Your task to perform on an android device: Open Wikipedia Image 0: 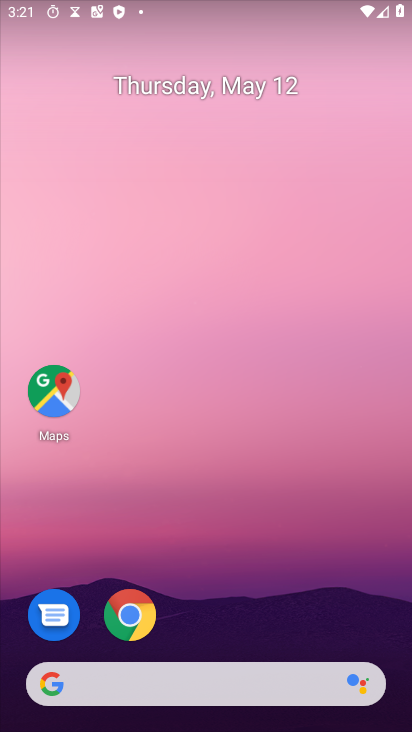
Step 0: press home button
Your task to perform on an android device: Open Wikipedia Image 1: 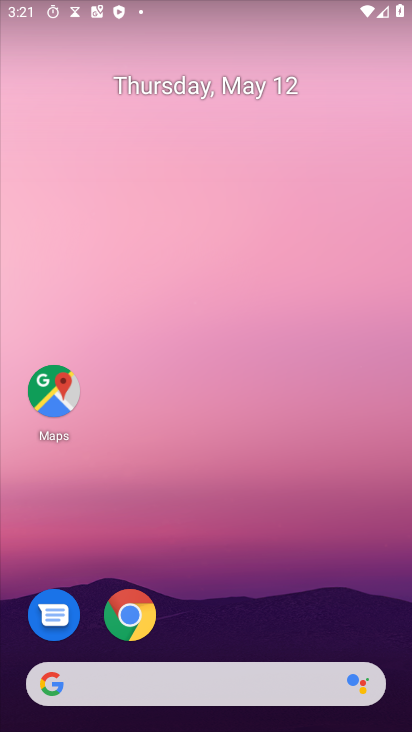
Step 1: click (123, 620)
Your task to perform on an android device: Open Wikipedia Image 2: 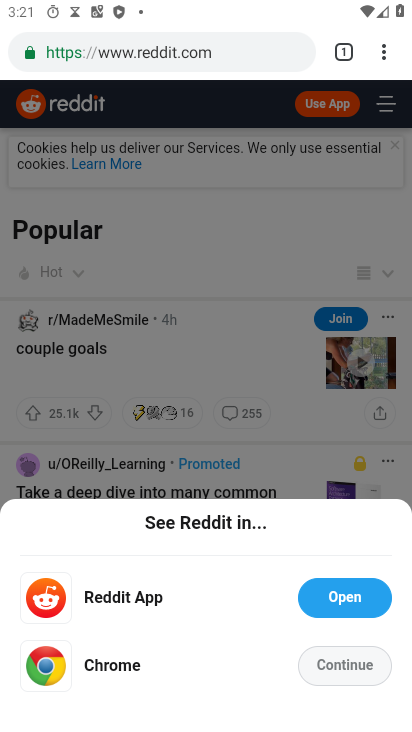
Step 2: click (340, 55)
Your task to perform on an android device: Open Wikipedia Image 3: 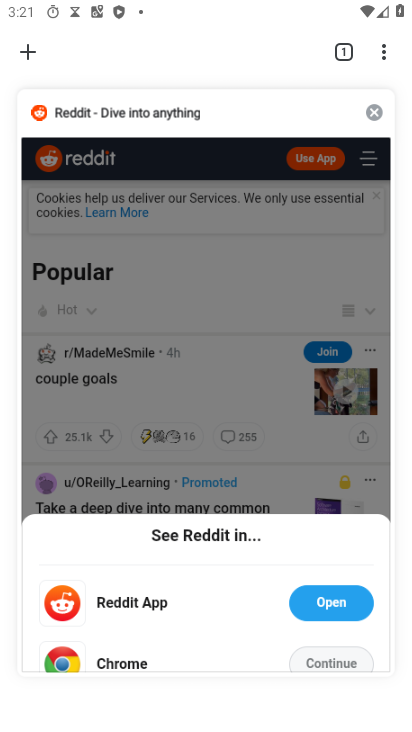
Step 3: click (371, 114)
Your task to perform on an android device: Open Wikipedia Image 4: 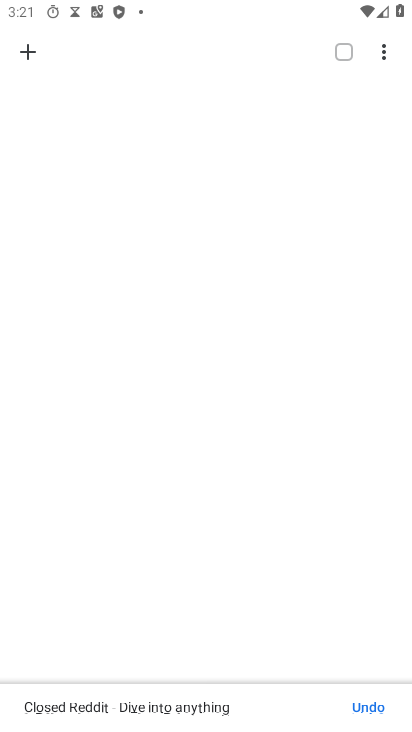
Step 4: click (17, 49)
Your task to perform on an android device: Open Wikipedia Image 5: 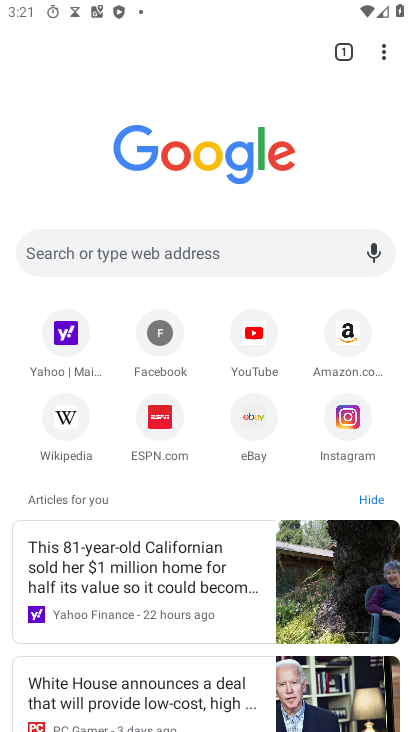
Step 5: click (49, 429)
Your task to perform on an android device: Open Wikipedia Image 6: 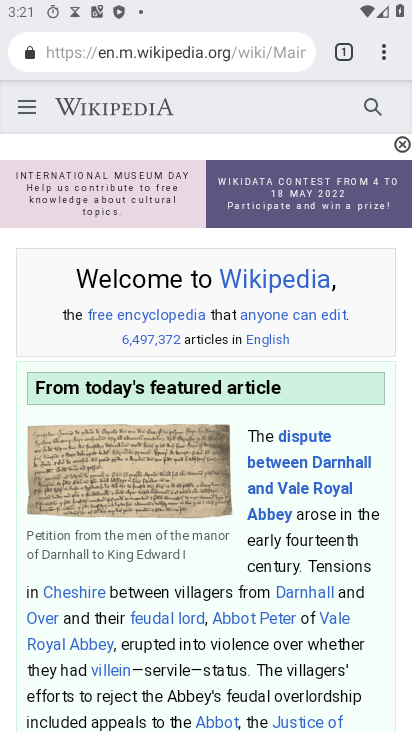
Step 6: task complete